Your task to perform on an android device: What's the weather going to be this weekend? Image 0: 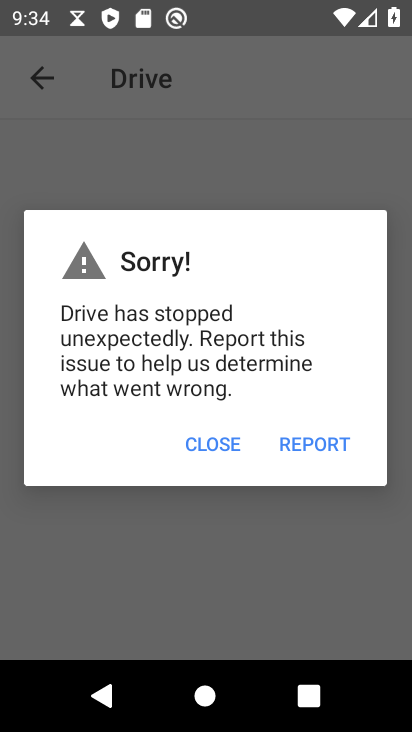
Step 0: press home button
Your task to perform on an android device: What's the weather going to be this weekend? Image 1: 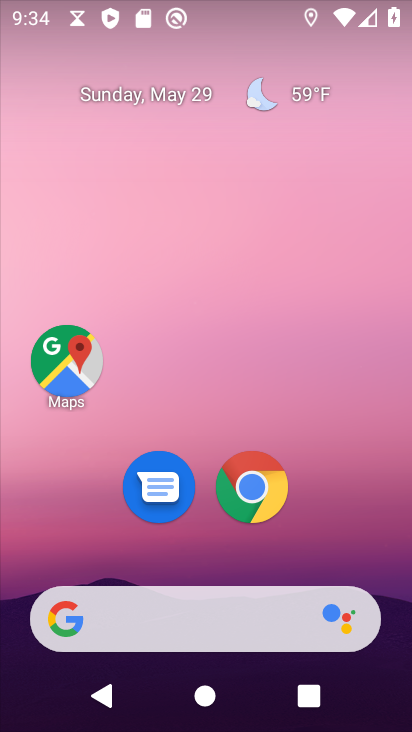
Step 1: drag from (347, 539) to (277, 166)
Your task to perform on an android device: What's the weather going to be this weekend? Image 2: 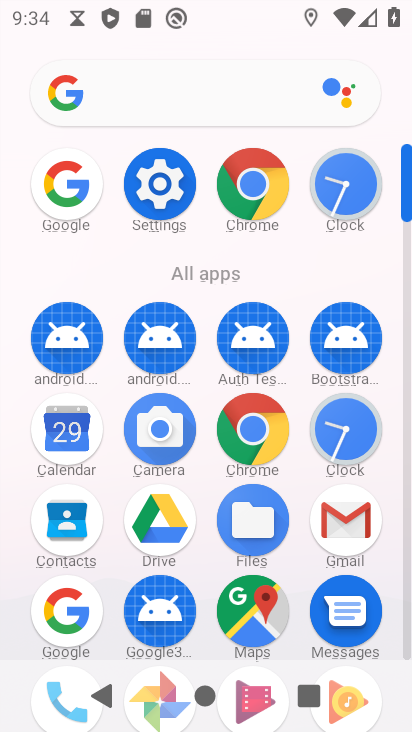
Step 2: click (61, 182)
Your task to perform on an android device: What's the weather going to be this weekend? Image 3: 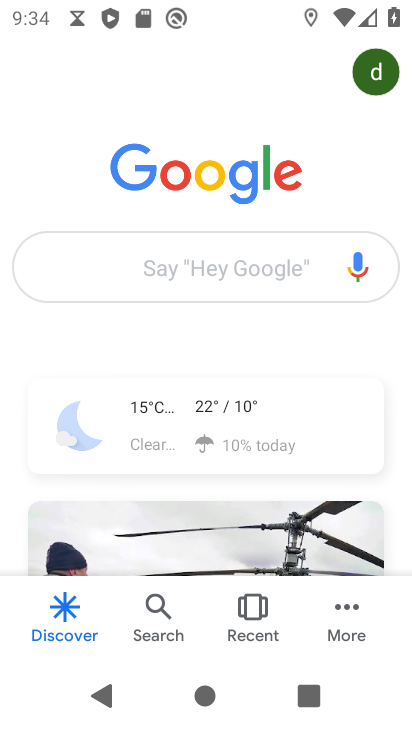
Step 3: click (138, 270)
Your task to perform on an android device: What's the weather going to be this weekend? Image 4: 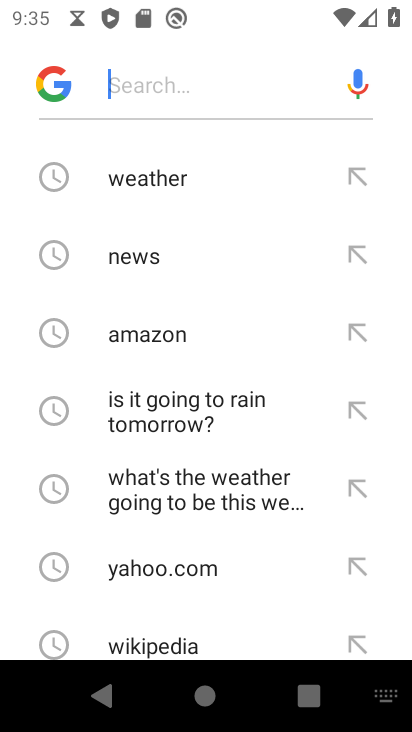
Step 4: type "weekend weather"
Your task to perform on an android device: What's the weather going to be this weekend? Image 5: 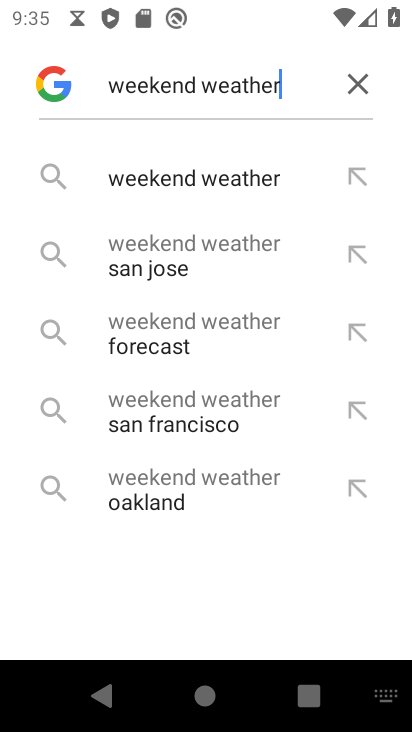
Step 5: click (190, 167)
Your task to perform on an android device: What's the weather going to be this weekend? Image 6: 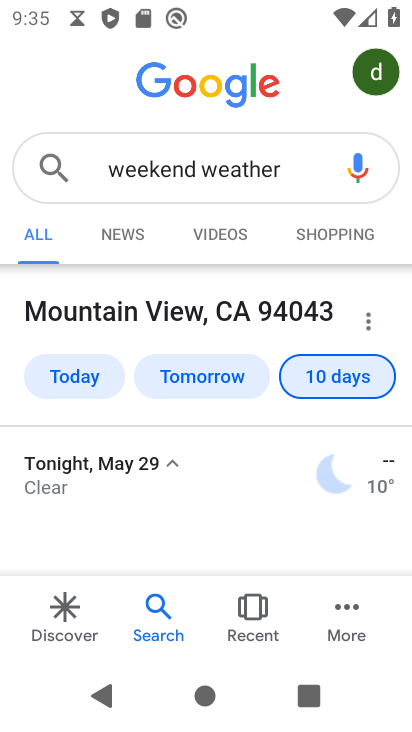
Step 6: drag from (218, 524) to (318, 319)
Your task to perform on an android device: What's the weather going to be this weekend? Image 7: 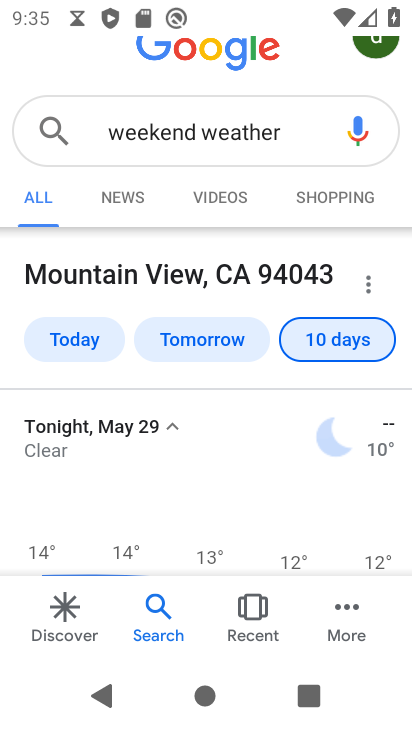
Step 7: drag from (208, 466) to (319, 301)
Your task to perform on an android device: What's the weather going to be this weekend? Image 8: 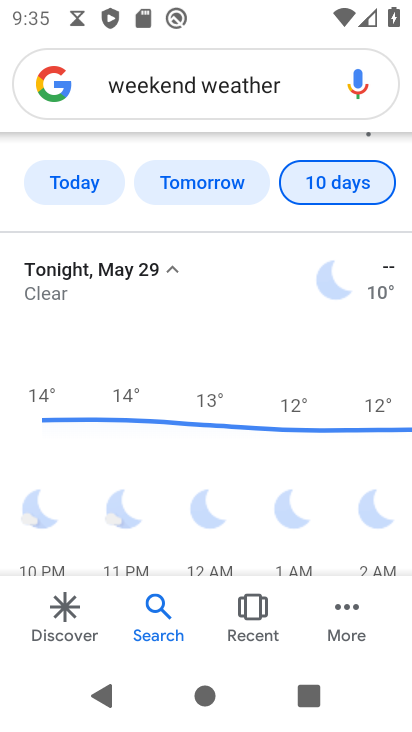
Step 8: drag from (254, 490) to (344, 305)
Your task to perform on an android device: What's the weather going to be this weekend? Image 9: 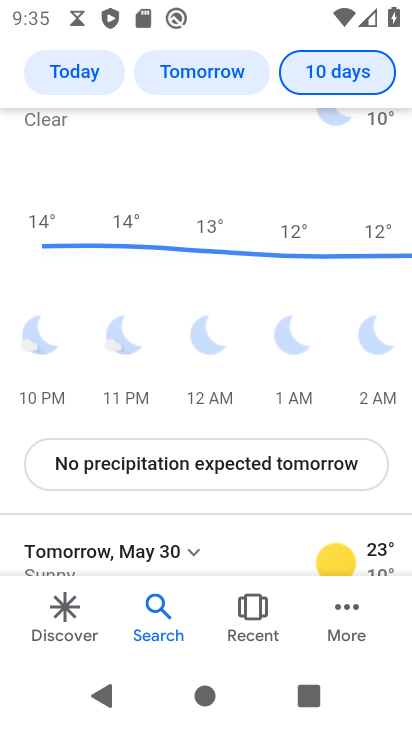
Step 9: drag from (274, 536) to (390, 341)
Your task to perform on an android device: What's the weather going to be this weekend? Image 10: 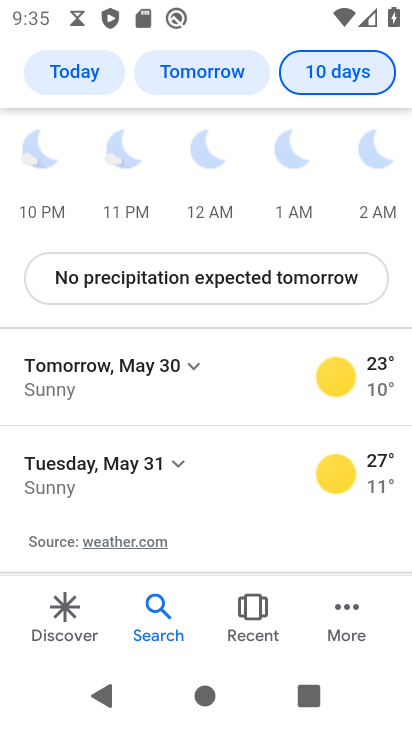
Step 10: drag from (273, 493) to (359, 296)
Your task to perform on an android device: What's the weather going to be this weekend? Image 11: 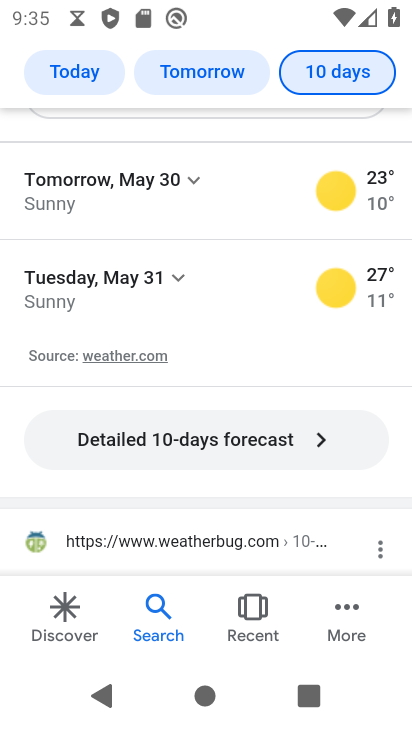
Step 11: click (262, 438)
Your task to perform on an android device: What's the weather going to be this weekend? Image 12: 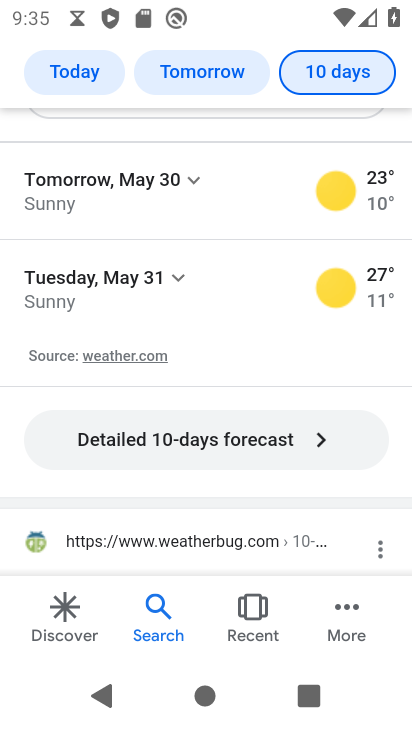
Step 12: task complete